Your task to perform on an android device: turn off airplane mode Image 0: 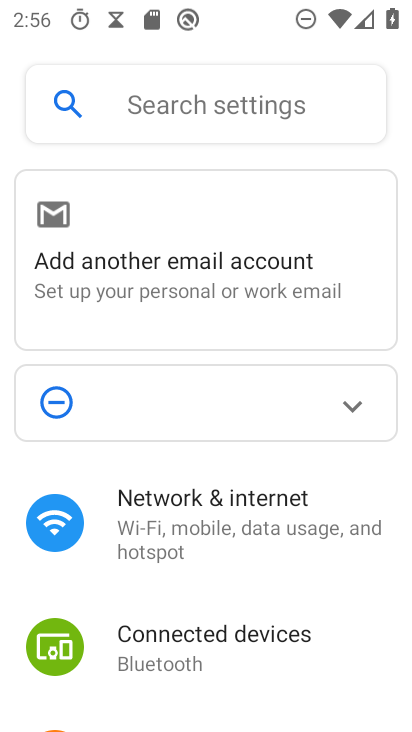
Step 0: drag from (249, 634) to (221, 220)
Your task to perform on an android device: turn off airplane mode Image 1: 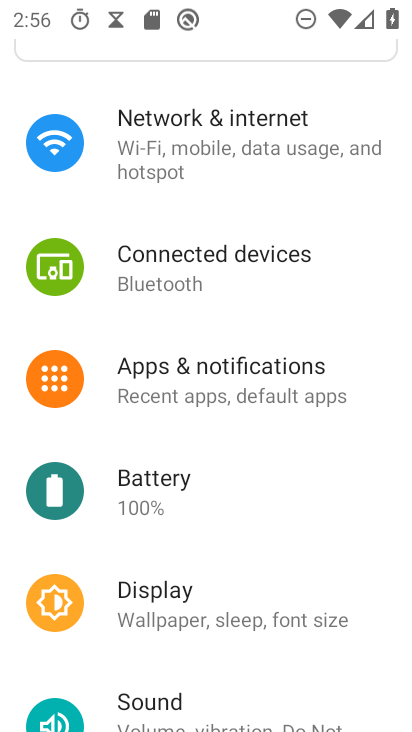
Step 1: click (179, 158)
Your task to perform on an android device: turn off airplane mode Image 2: 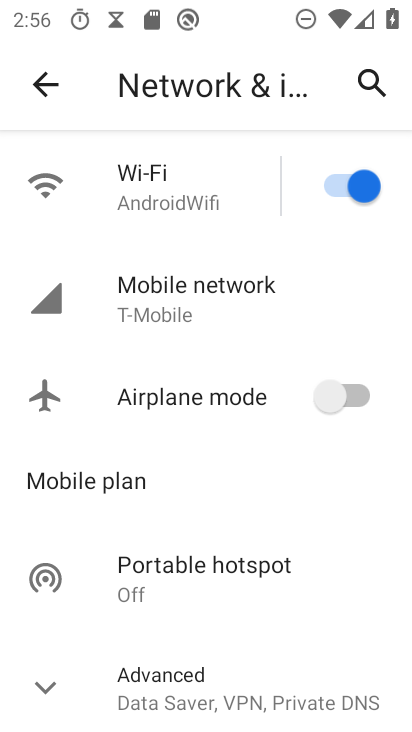
Step 2: task complete